Your task to perform on an android device: Go to sound settings Image 0: 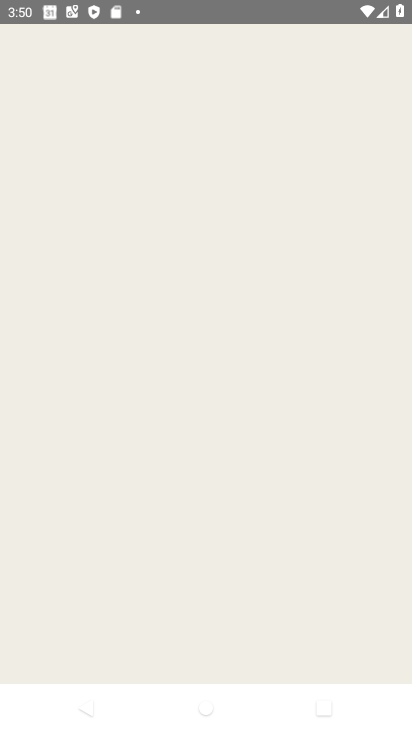
Step 0: press home button
Your task to perform on an android device: Go to sound settings Image 1: 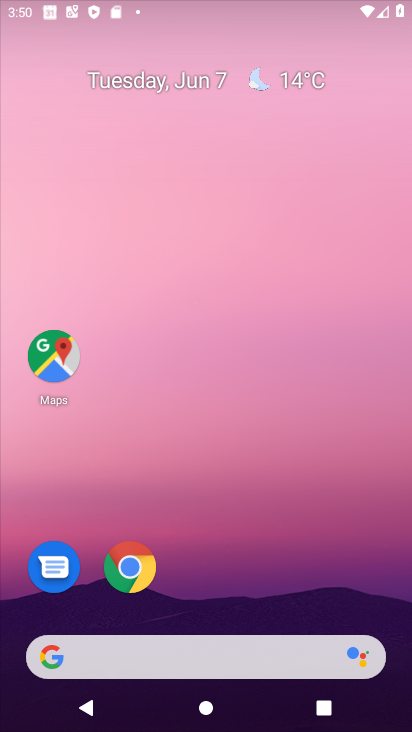
Step 1: drag from (208, 603) to (210, 183)
Your task to perform on an android device: Go to sound settings Image 2: 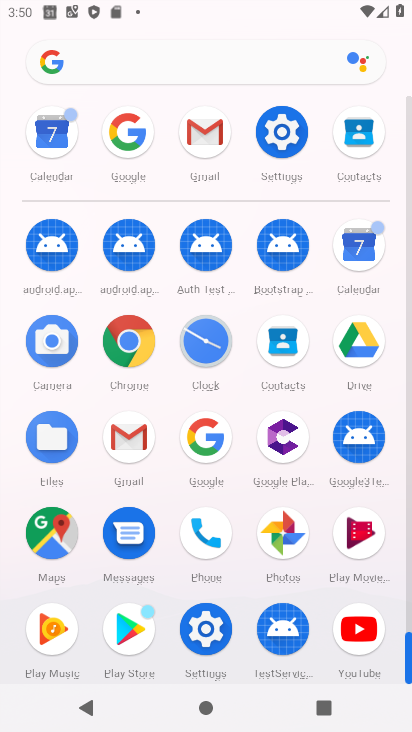
Step 2: click (273, 147)
Your task to perform on an android device: Go to sound settings Image 3: 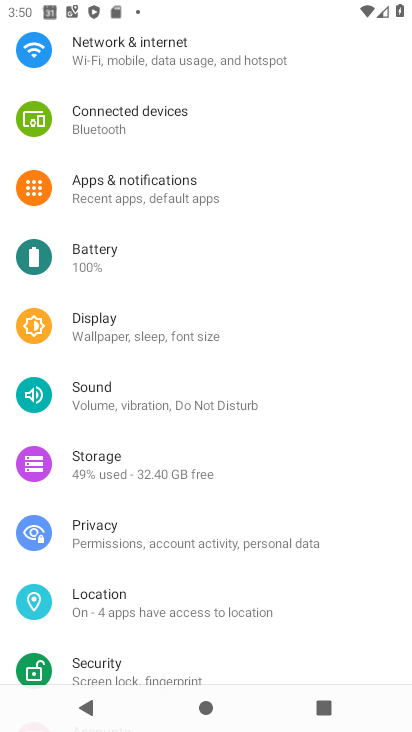
Step 3: click (120, 372)
Your task to perform on an android device: Go to sound settings Image 4: 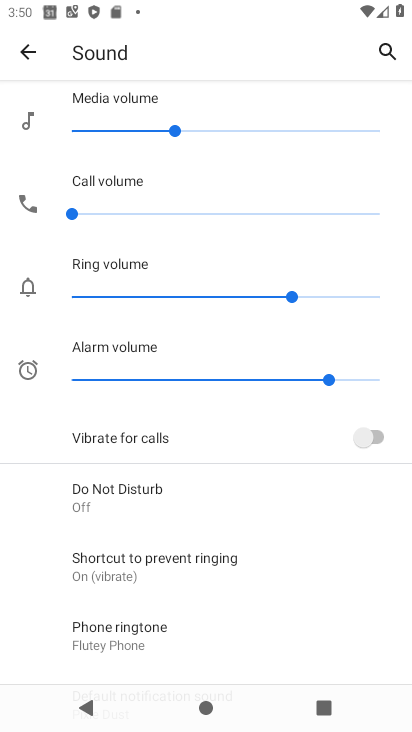
Step 4: task complete